Your task to perform on an android device: What's the weather? Image 0: 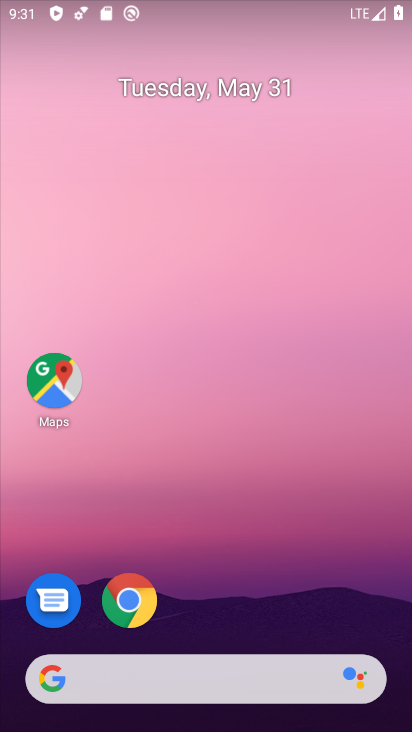
Step 0: click (175, 672)
Your task to perform on an android device: What's the weather? Image 1: 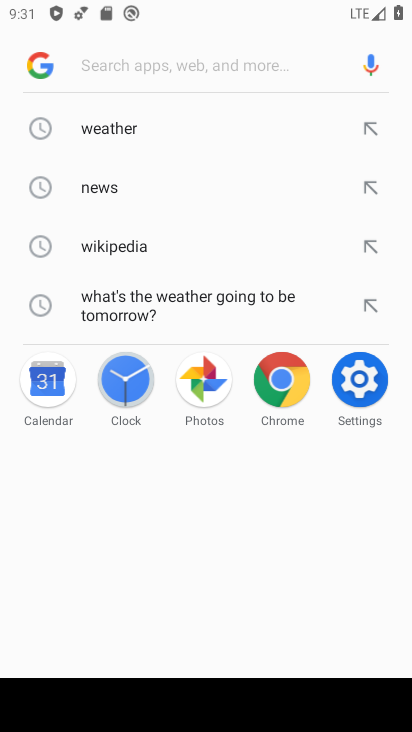
Step 1: click (130, 128)
Your task to perform on an android device: What's the weather? Image 2: 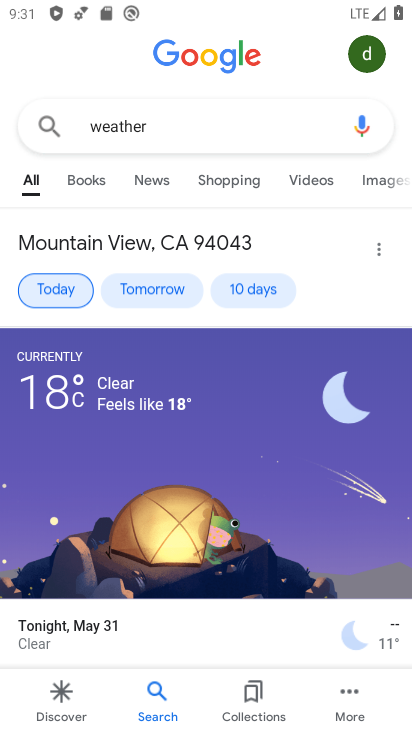
Step 2: task complete